Your task to perform on an android device: turn notification dots off Image 0: 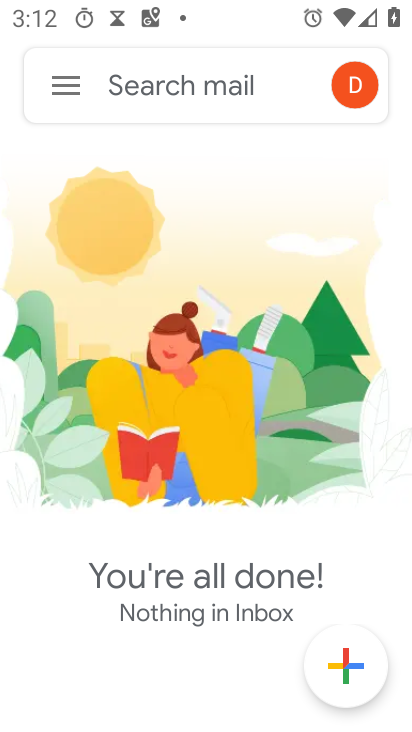
Step 0: press back button
Your task to perform on an android device: turn notification dots off Image 1: 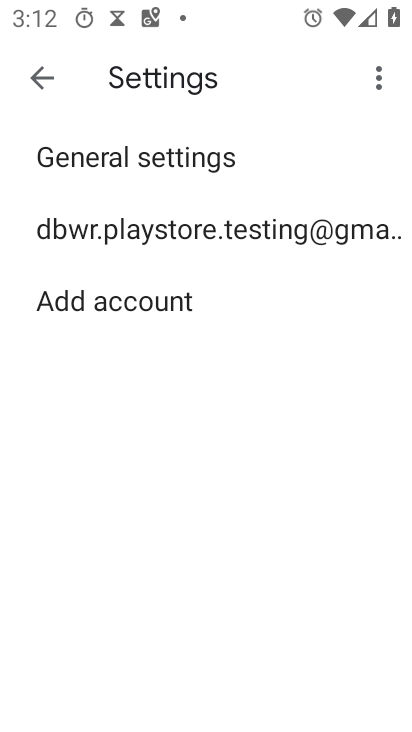
Step 1: press back button
Your task to perform on an android device: turn notification dots off Image 2: 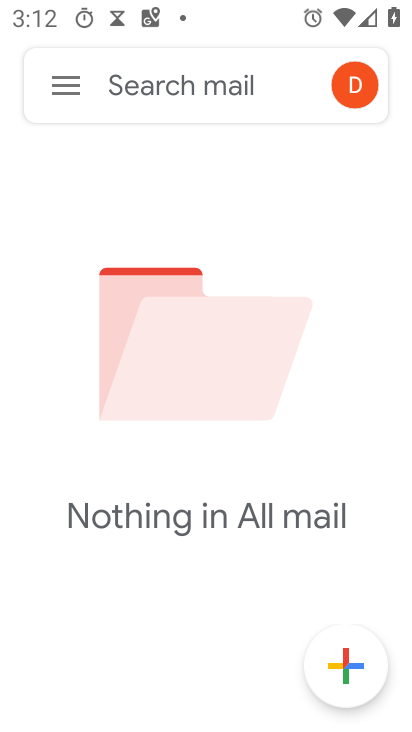
Step 2: press back button
Your task to perform on an android device: turn notification dots off Image 3: 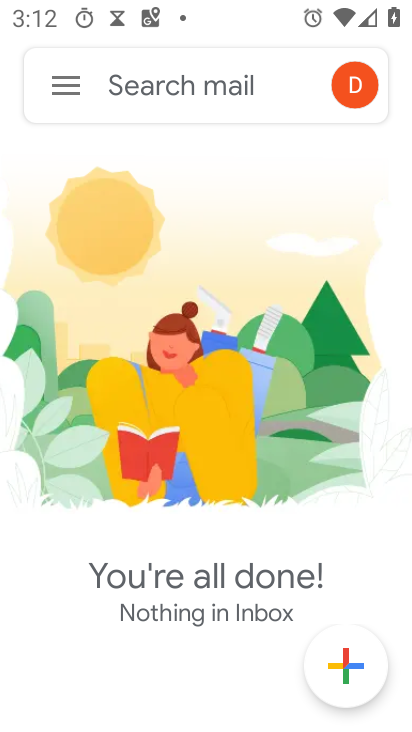
Step 3: press back button
Your task to perform on an android device: turn notification dots off Image 4: 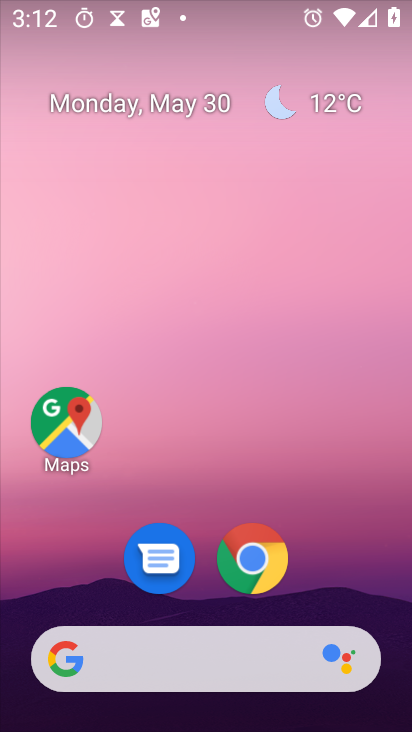
Step 4: drag from (221, 495) to (274, 13)
Your task to perform on an android device: turn notification dots off Image 5: 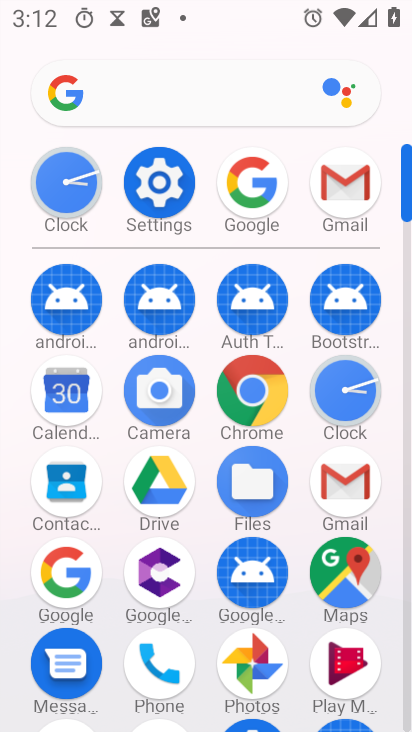
Step 5: click (157, 185)
Your task to perform on an android device: turn notification dots off Image 6: 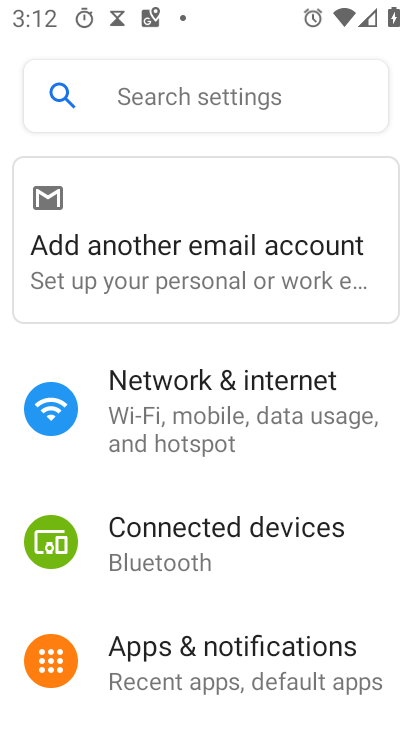
Step 6: click (202, 639)
Your task to perform on an android device: turn notification dots off Image 7: 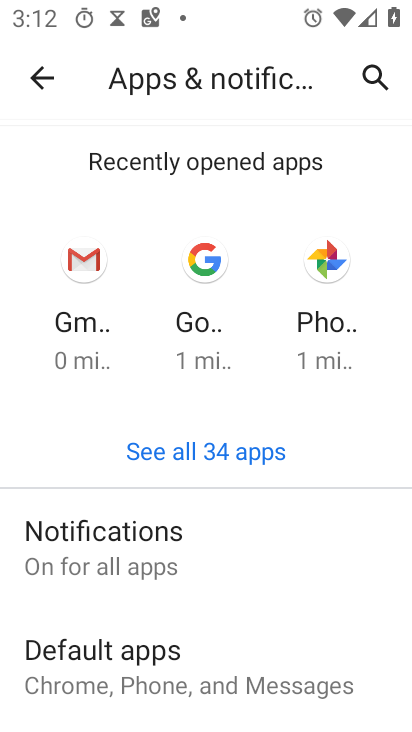
Step 7: click (144, 547)
Your task to perform on an android device: turn notification dots off Image 8: 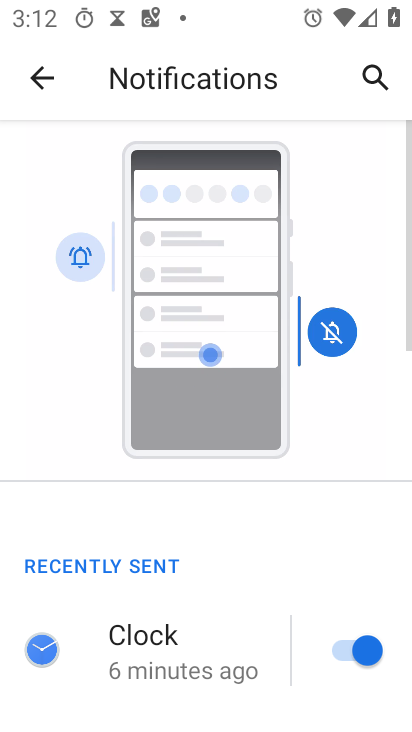
Step 8: drag from (171, 657) to (252, 120)
Your task to perform on an android device: turn notification dots off Image 9: 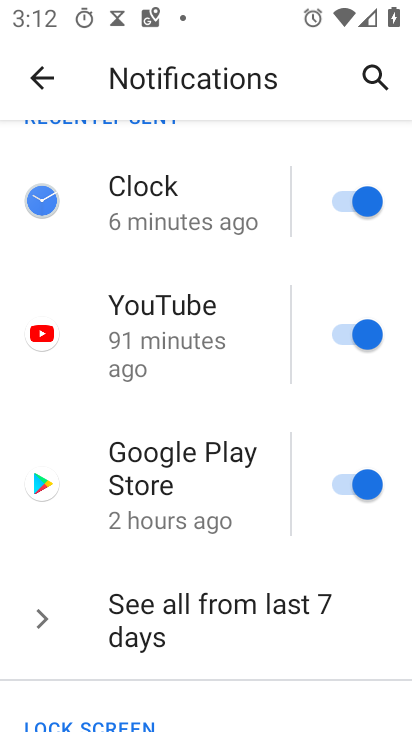
Step 9: drag from (144, 653) to (202, 165)
Your task to perform on an android device: turn notification dots off Image 10: 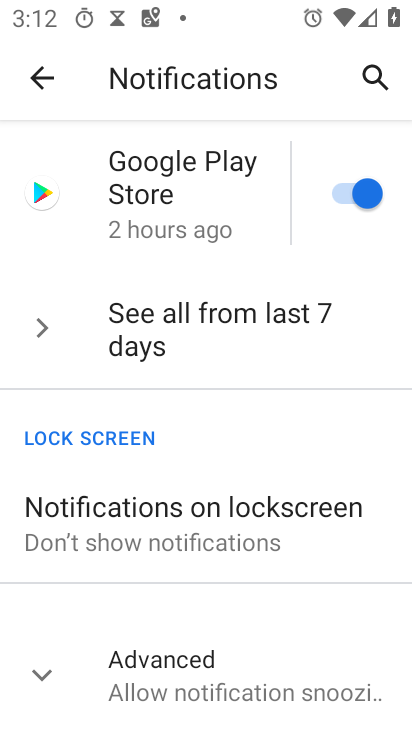
Step 10: click (190, 676)
Your task to perform on an android device: turn notification dots off Image 11: 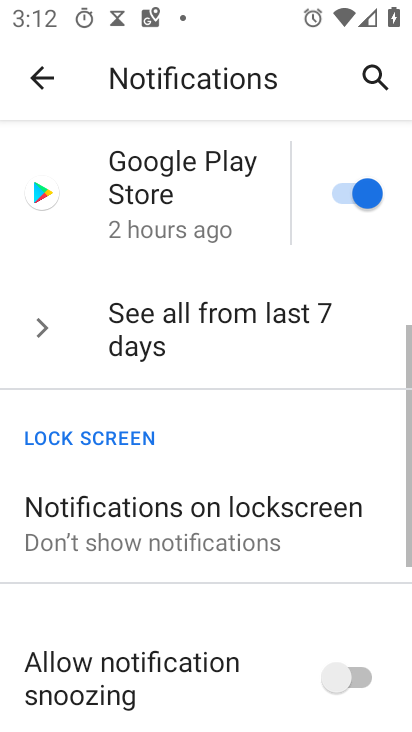
Step 11: task complete